Your task to perform on an android device: Add "panasonic triple a" to the cart on ebay.com, then select checkout. Image 0: 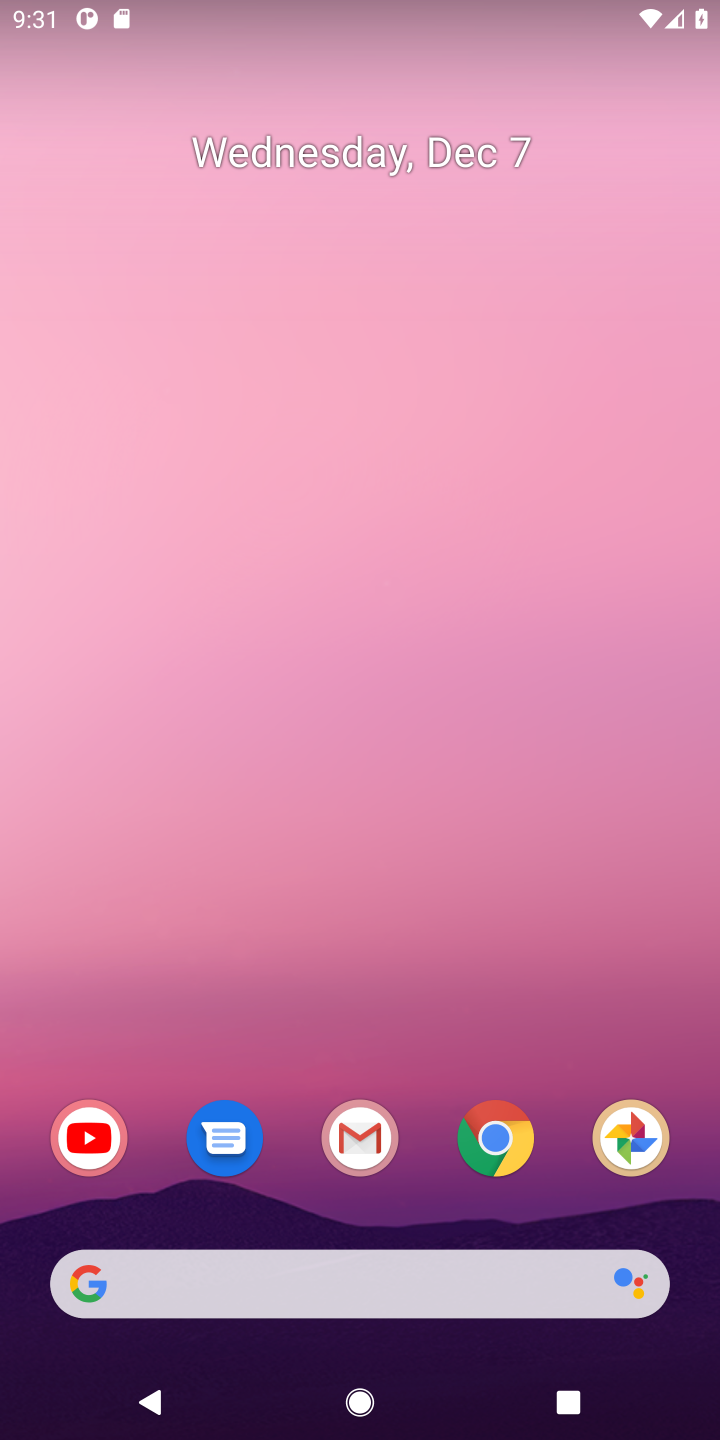
Step 0: press home button
Your task to perform on an android device: Add "panasonic triple a" to the cart on ebay.com, then select checkout. Image 1: 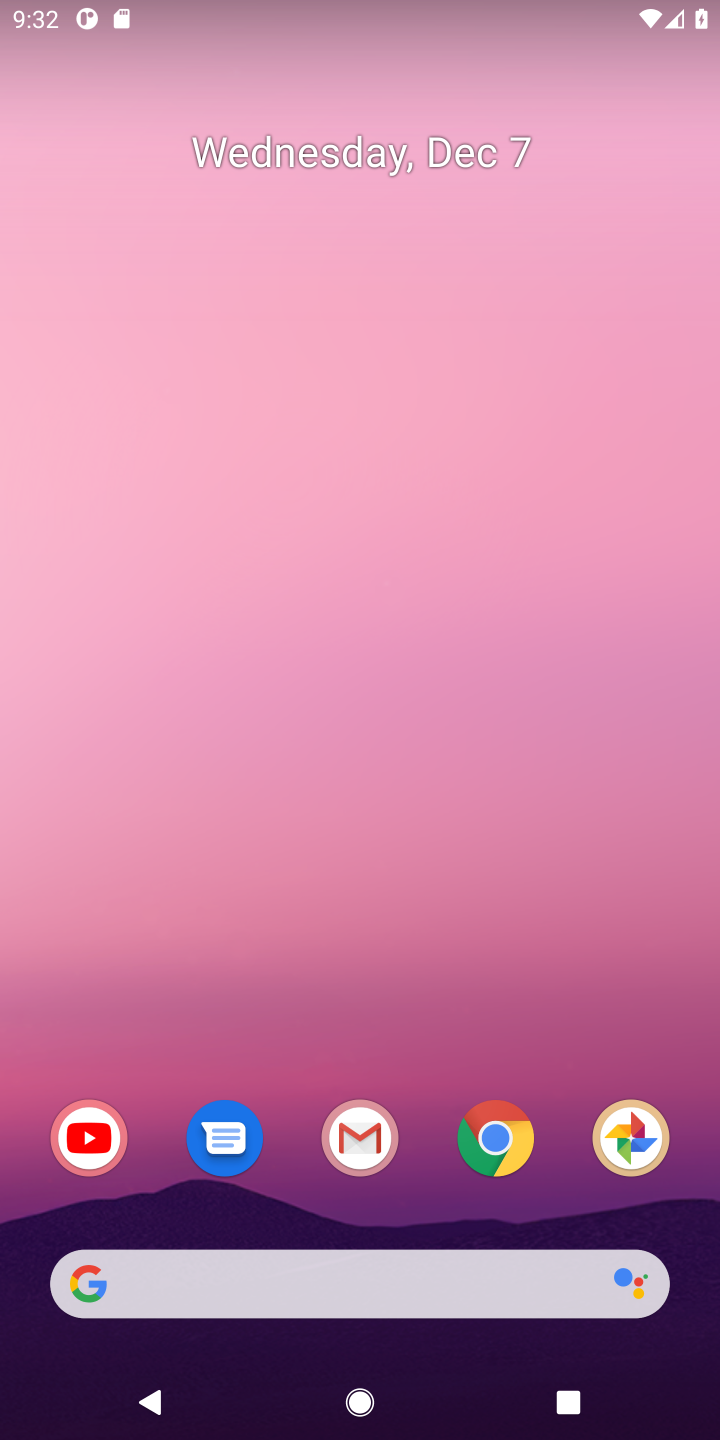
Step 1: click (133, 1290)
Your task to perform on an android device: Add "panasonic triple a" to the cart on ebay.com, then select checkout. Image 2: 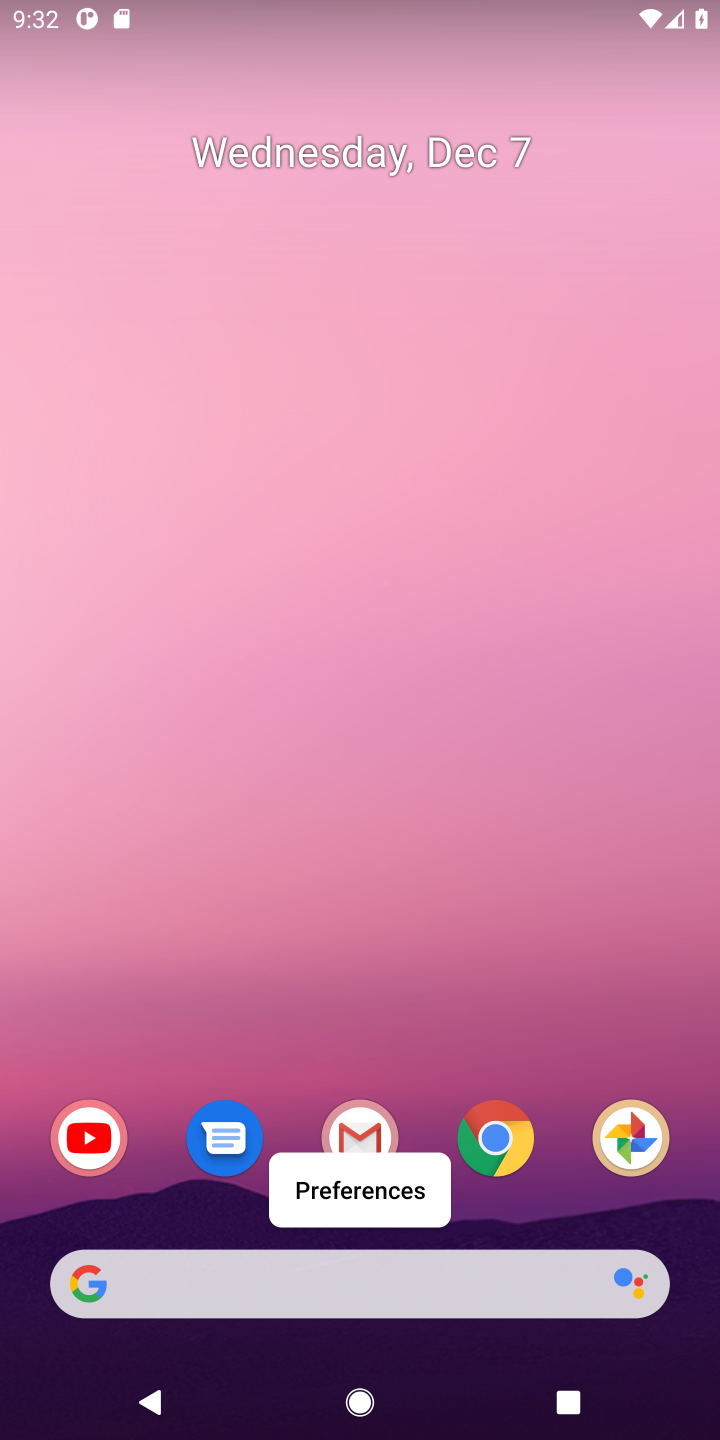
Step 2: click (130, 1297)
Your task to perform on an android device: Add "panasonic triple a" to the cart on ebay.com, then select checkout. Image 3: 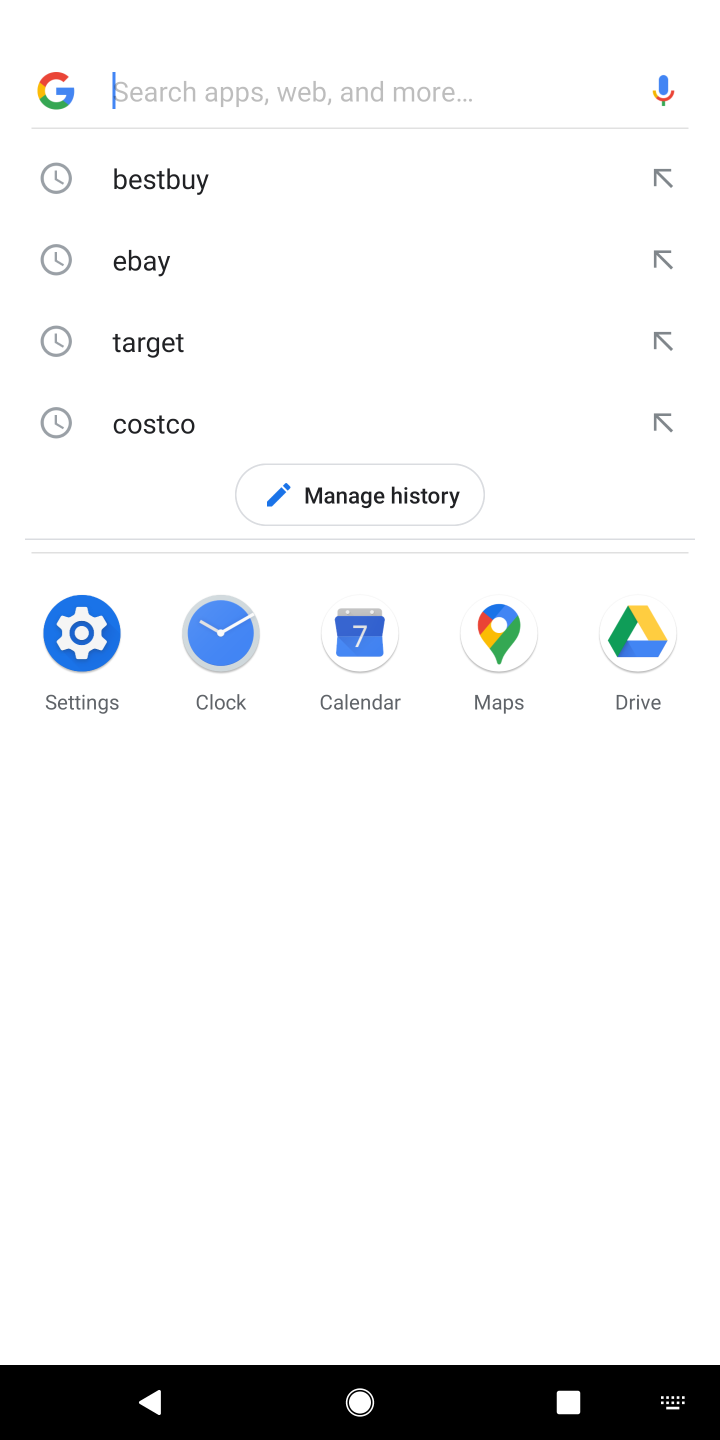
Step 3: type "ebay.com"
Your task to perform on an android device: Add "panasonic triple a" to the cart on ebay.com, then select checkout. Image 4: 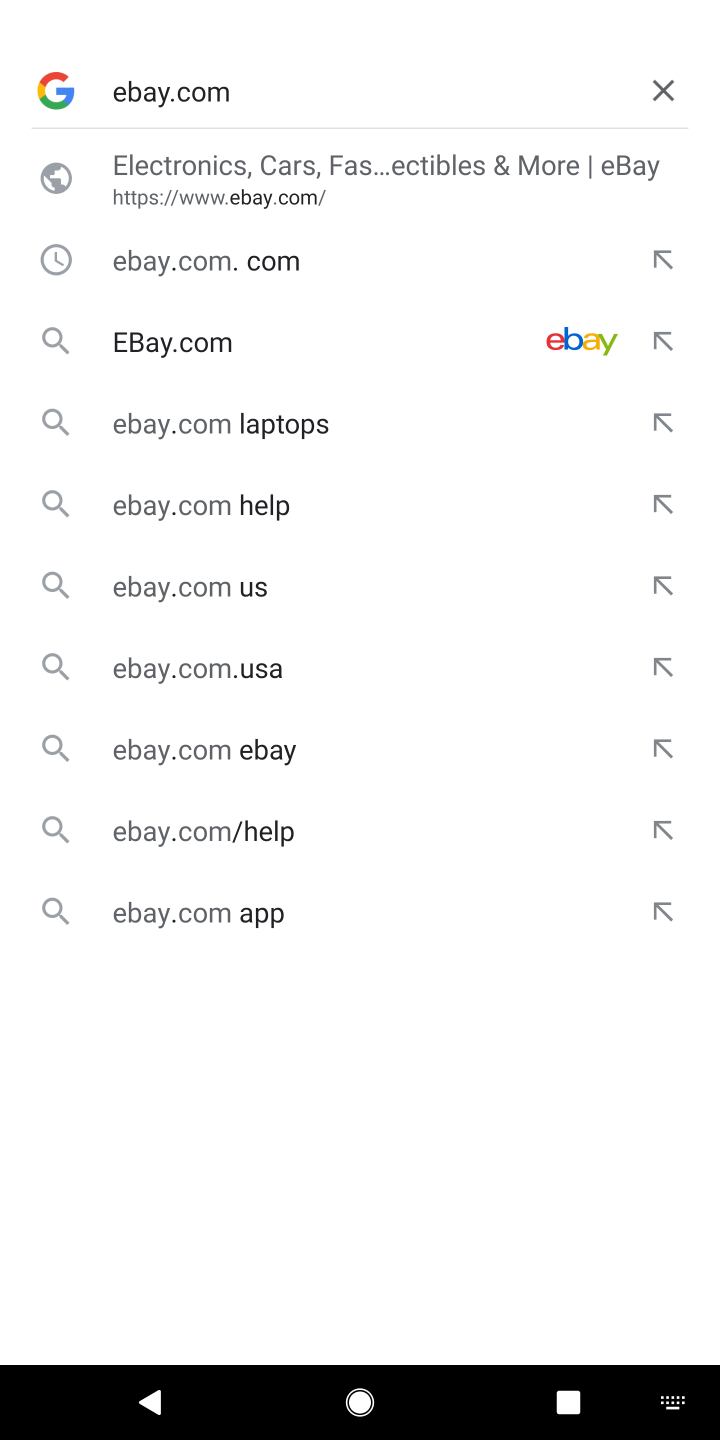
Step 4: press enter
Your task to perform on an android device: Add "panasonic triple a" to the cart on ebay.com, then select checkout. Image 5: 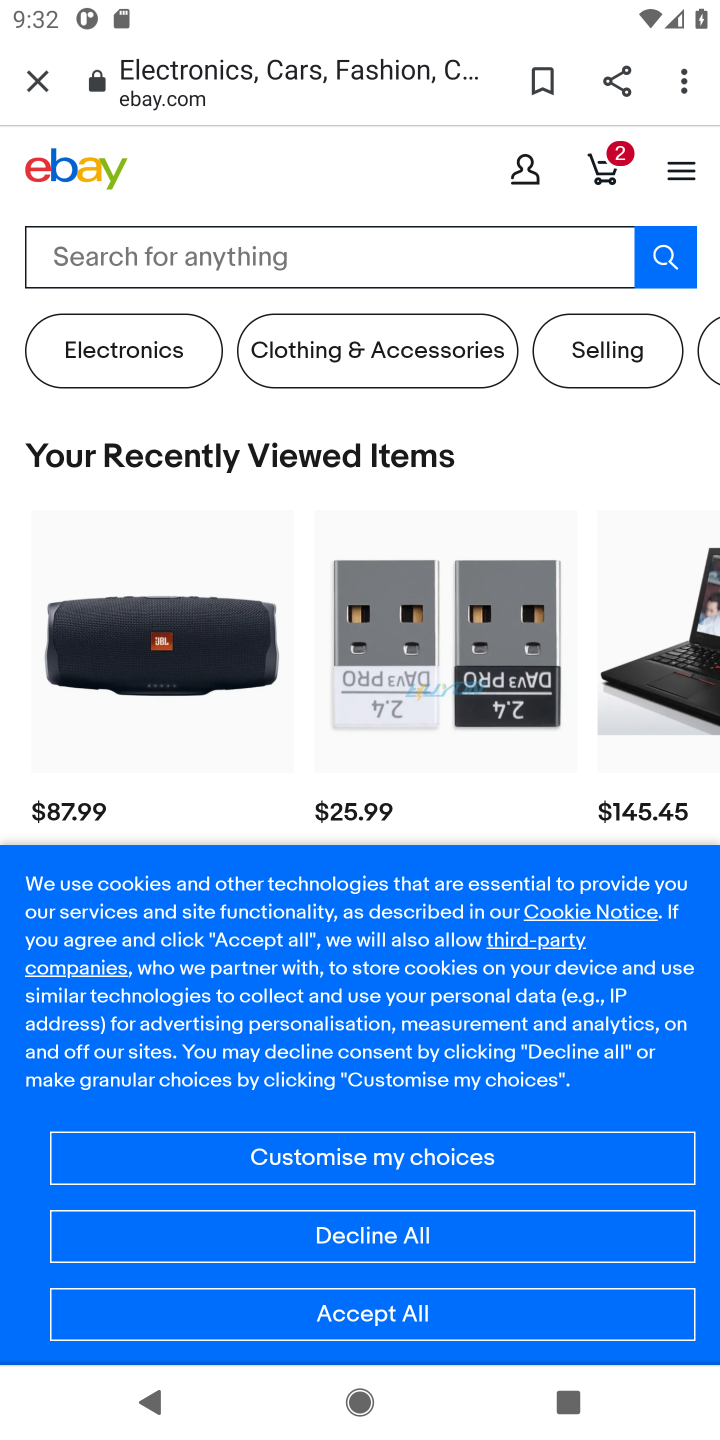
Step 5: click (212, 259)
Your task to perform on an android device: Add "panasonic triple a" to the cart on ebay.com, then select checkout. Image 6: 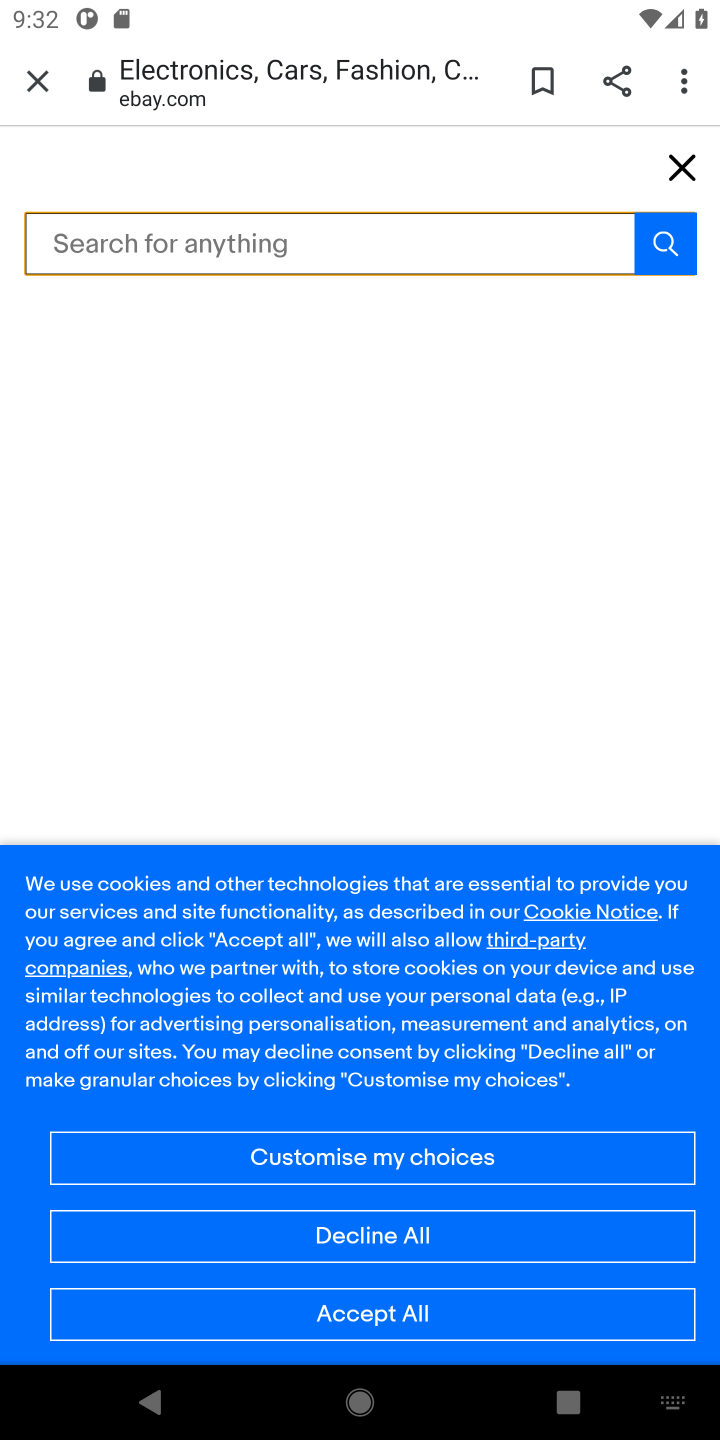
Step 6: press enter
Your task to perform on an android device: Add "panasonic triple a" to the cart on ebay.com, then select checkout. Image 7: 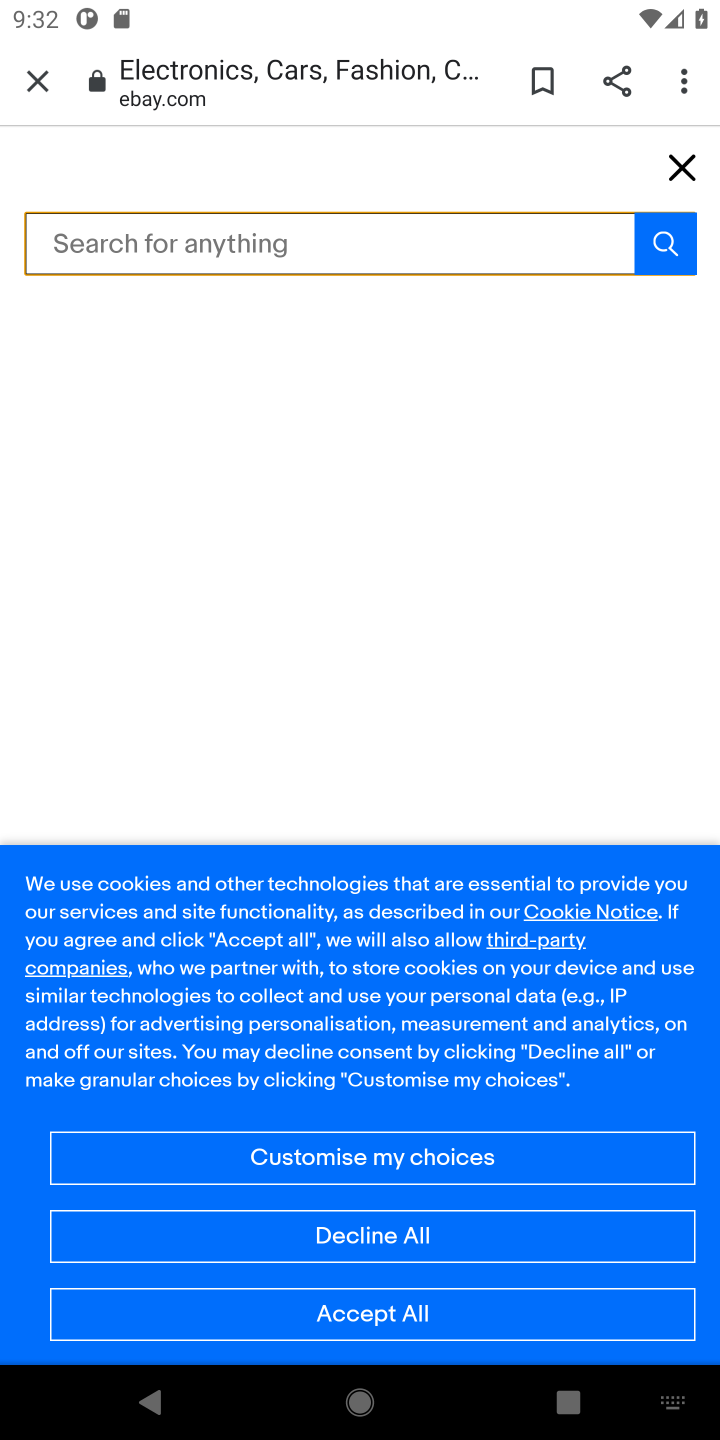
Step 7: type "panasonic triple a"
Your task to perform on an android device: Add "panasonic triple a" to the cart on ebay.com, then select checkout. Image 8: 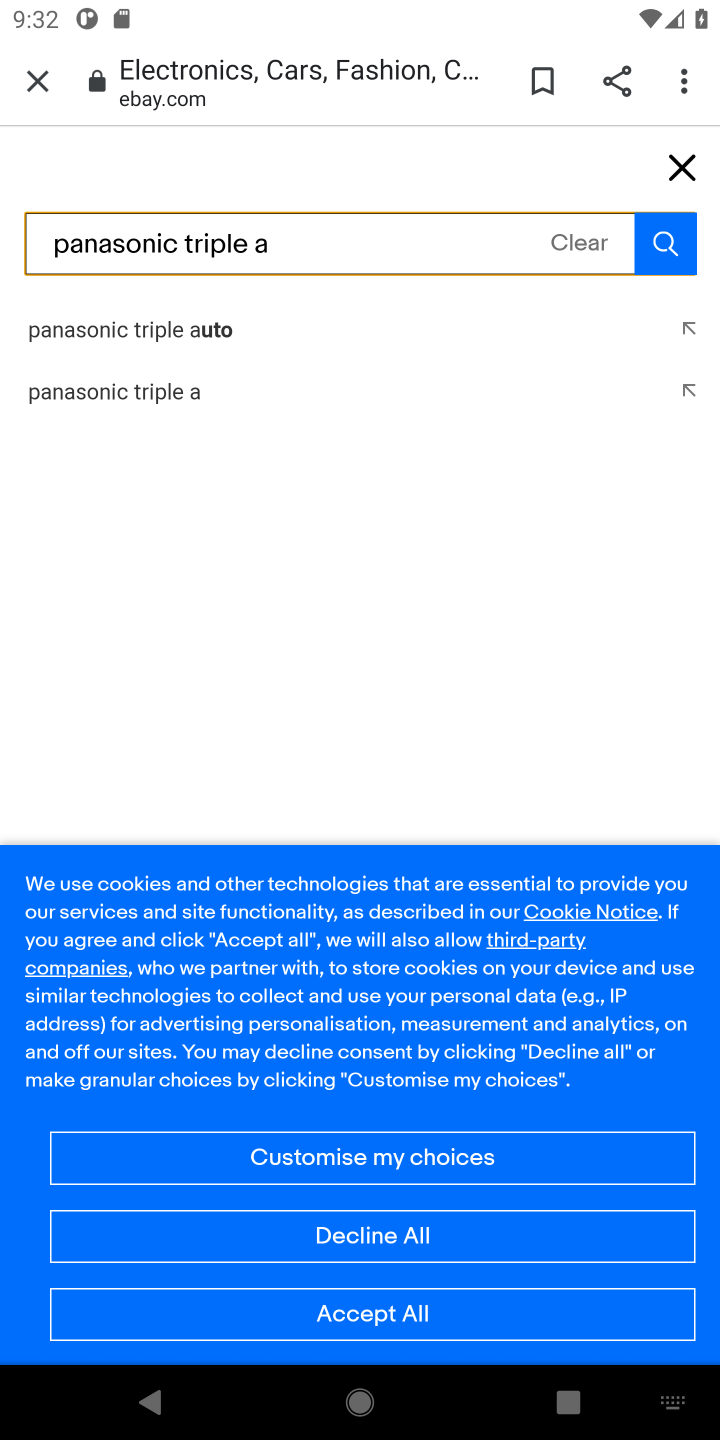
Step 8: click (671, 240)
Your task to perform on an android device: Add "panasonic triple a" to the cart on ebay.com, then select checkout. Image 9: 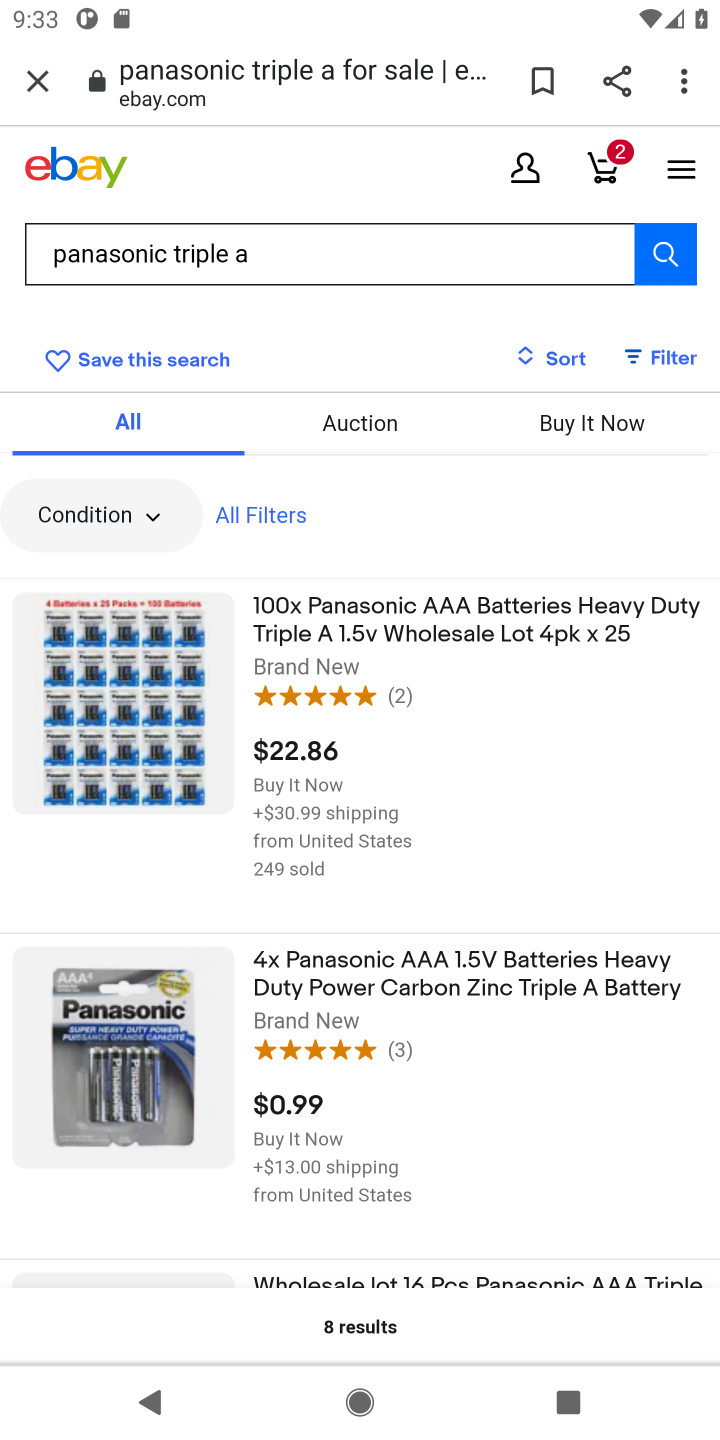
Step 9: click (366, 637)
Your task to perform on an android device: Add "panasonic triple a" to the cart on ebay.com, then select checkout. Image 10: 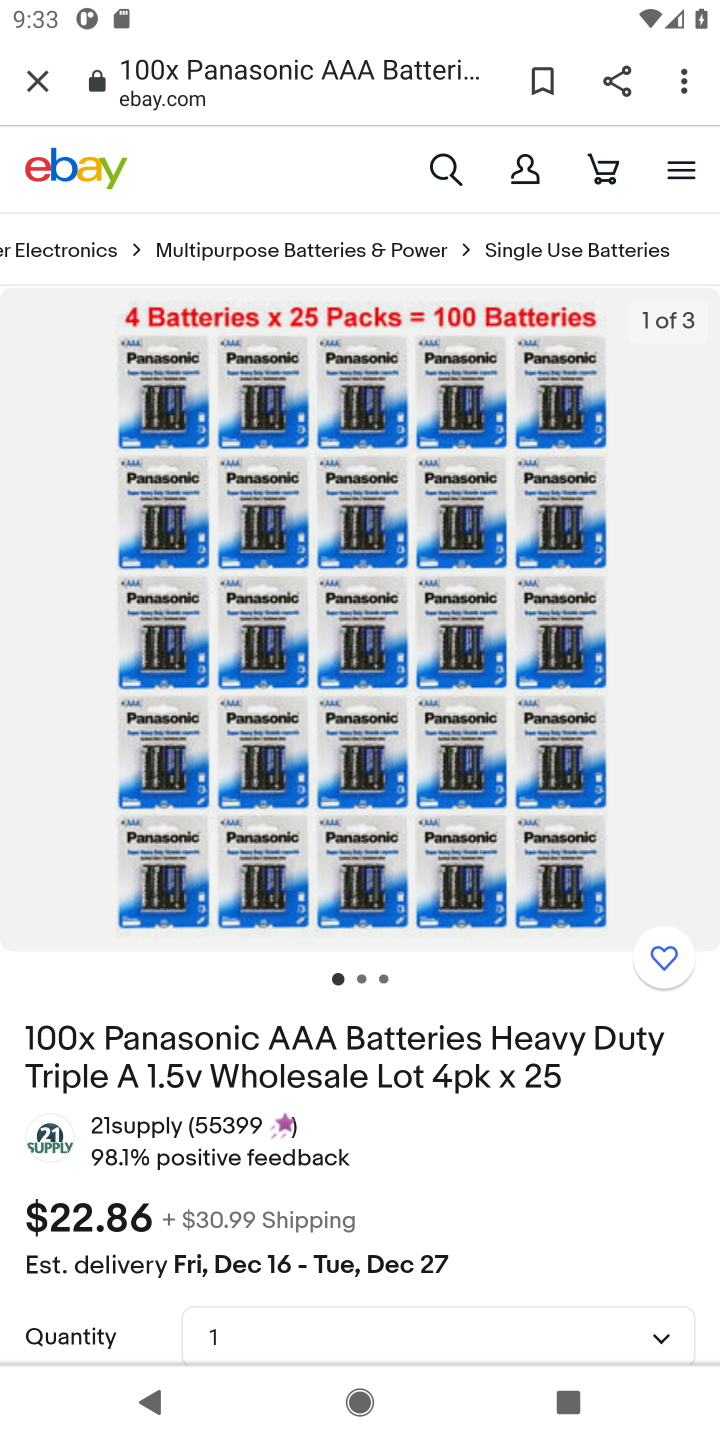
Step 10: drag from (398, 1190) to (416, 444)
Your task to perform on an android device: Add "panasonic triple a" to the cart on ebay.com, then select checkout. Image 11: 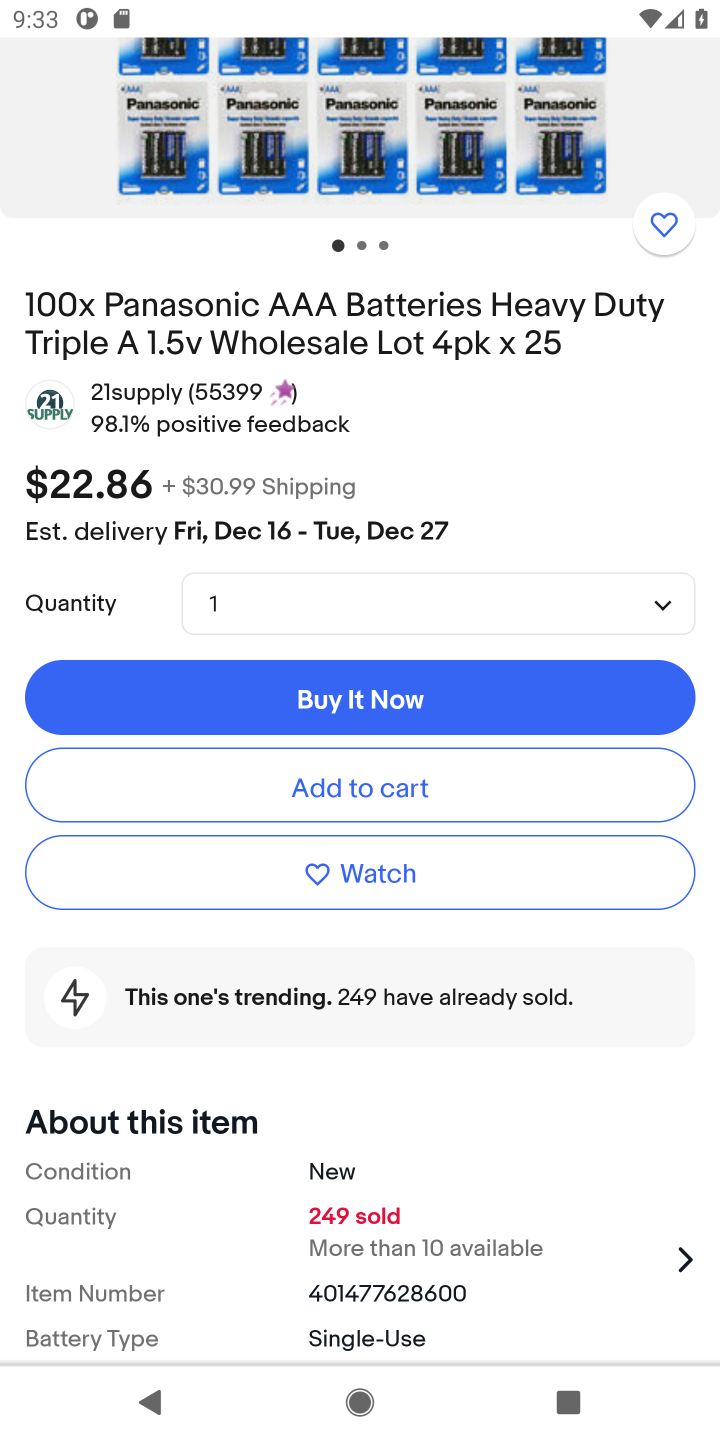
Step 11: drag from (374, 1002) to (371, 258)
Your task to perform on an android device: Add "panasonic triple a" to the cart on ebay.com, then select checkout. Image 12: 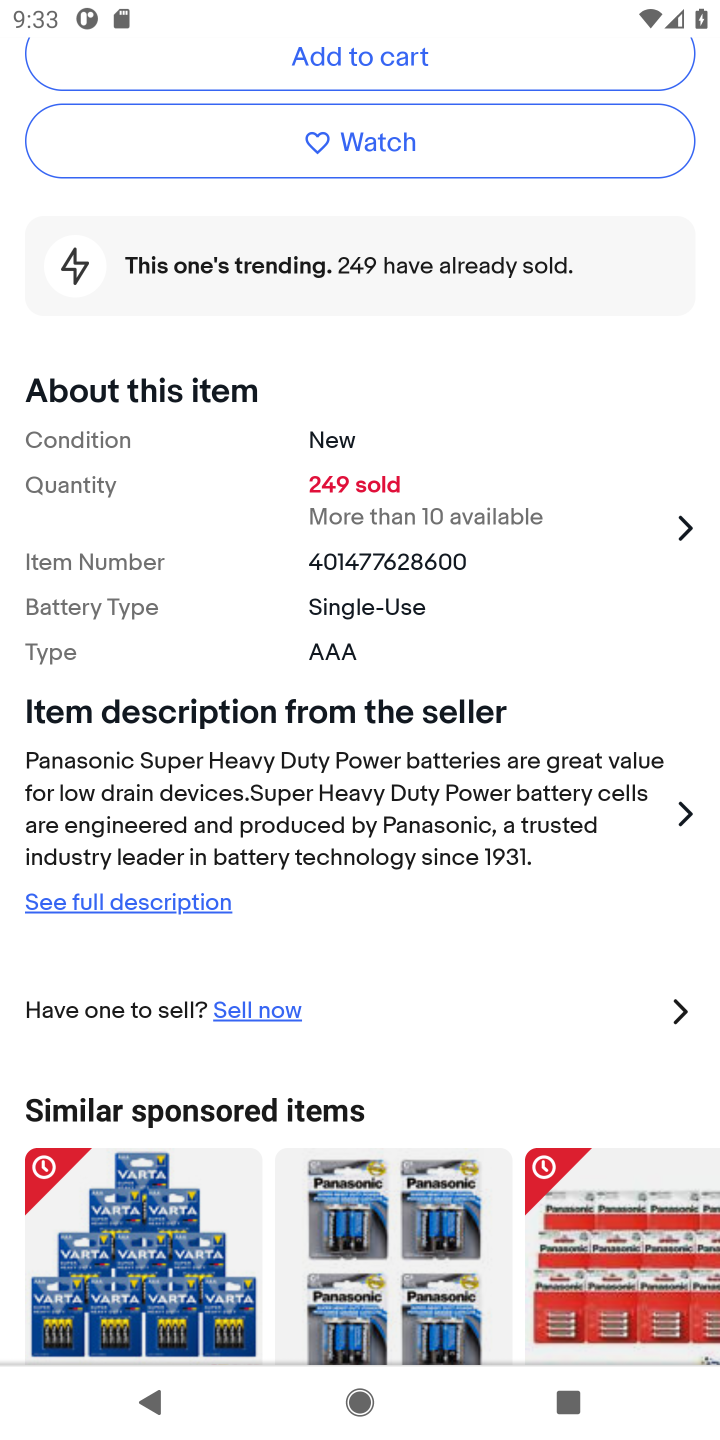
Step 12: drag from (455, 293) to (464, 794)
Your task to perform on an android device: Add "panasonic triple a" to the cart on ebay.com, then select checkout. Image 13: 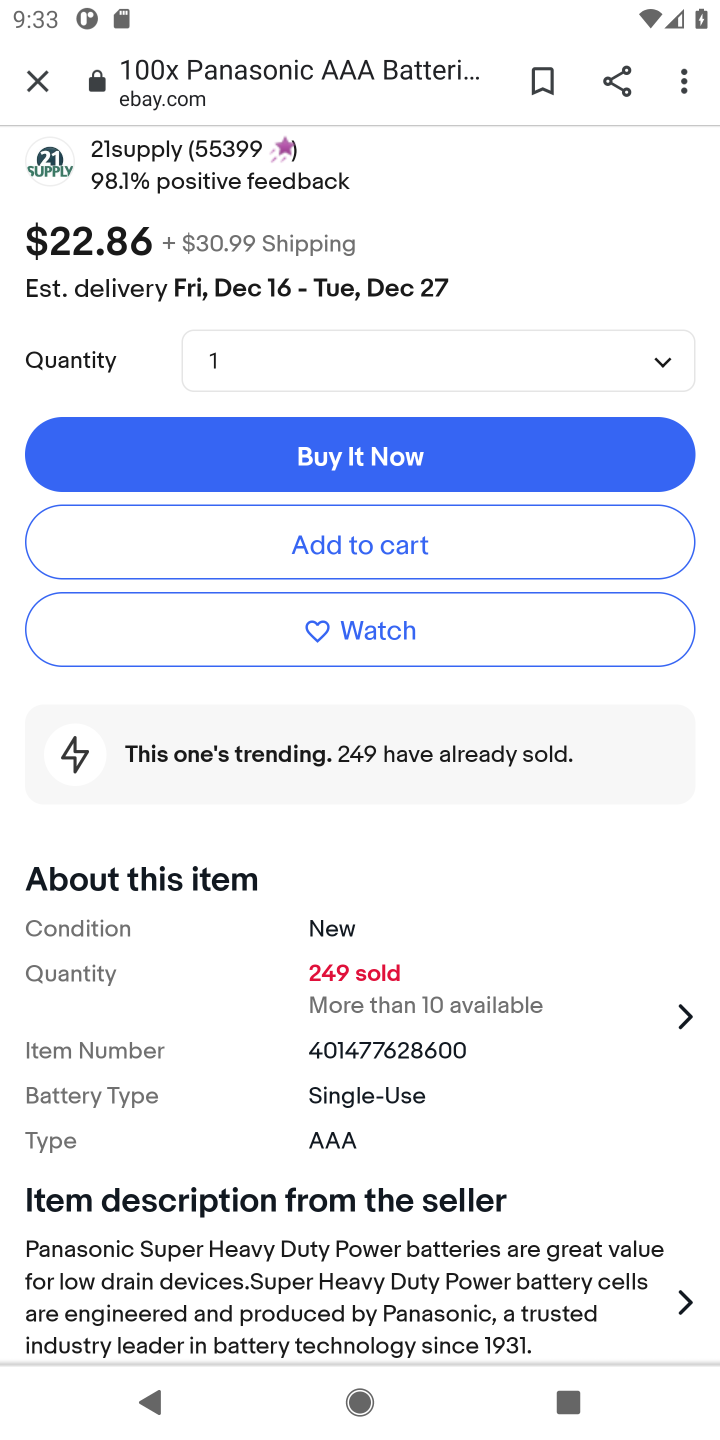
Step 13: click (325, 541)
Your task to perform on an android device: Add "panasonic triple a" to the cart on ebay.com, then select checkout. Image 14: 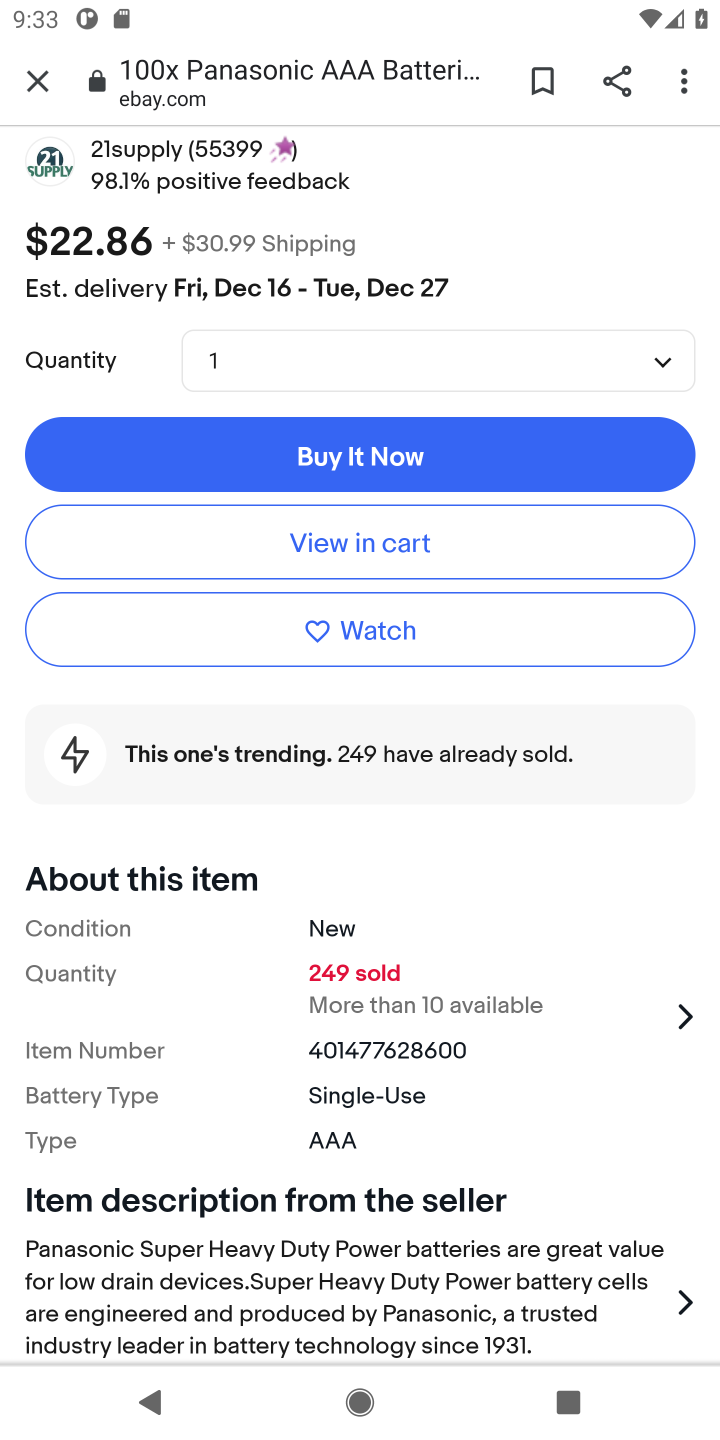
Step 14: task complete